Your task to perform on an android device: Open network settings Image 0: 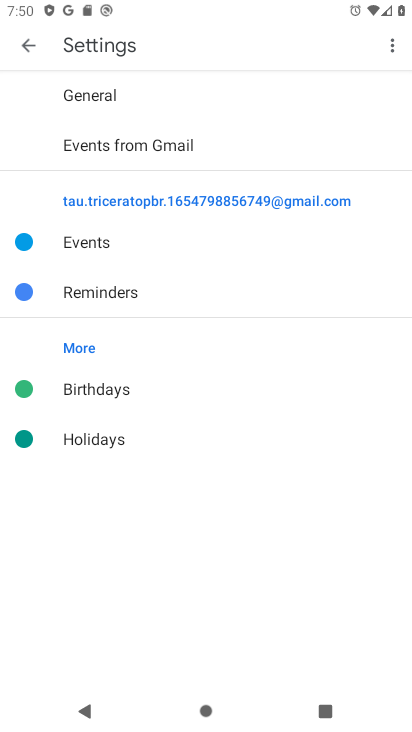
Step 0: press home button
Your task to perform on an android device: Open network settings Image 1: 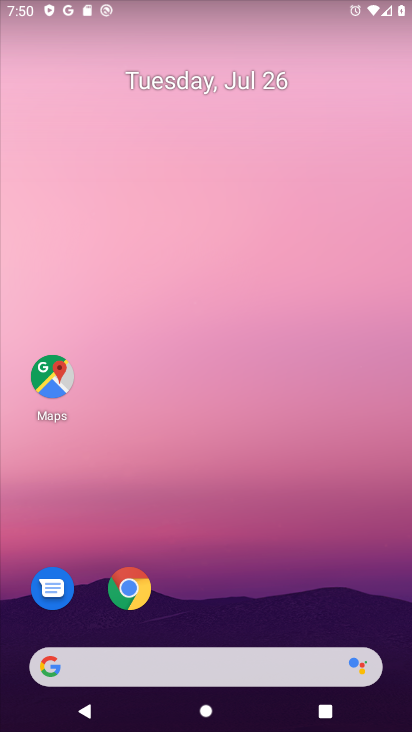
Step 1: drag from (242, 664) to (349, 31)
Your task to perform on an android device: Open network settings Image 2: 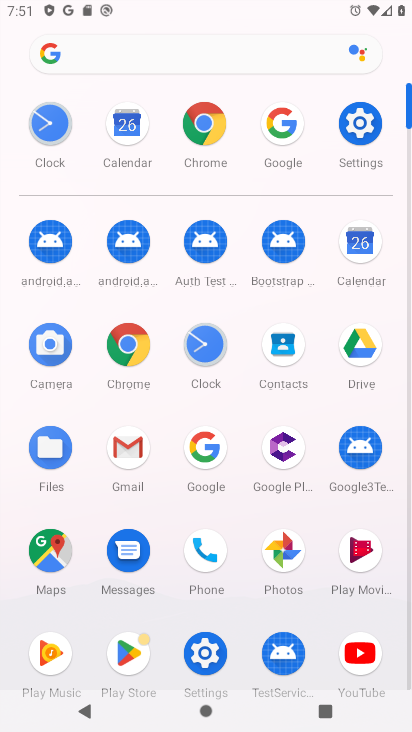
Step 2: click (351, 148)
Your task to perform on an android device: Open network settings Image 3: 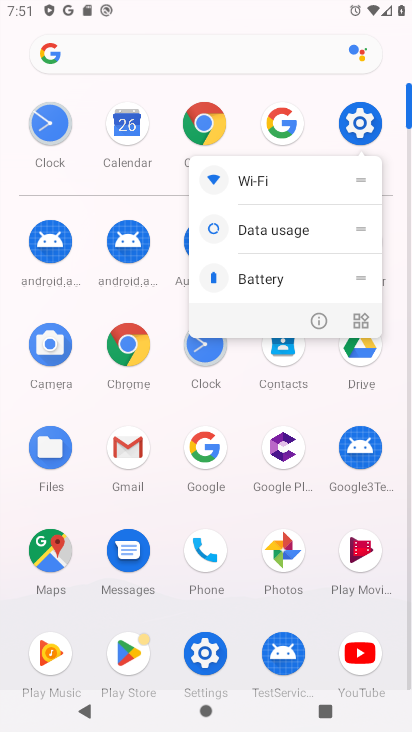
Step 3: click (369, 113)
Your task to perform on an android device: Open network settings Image 4: 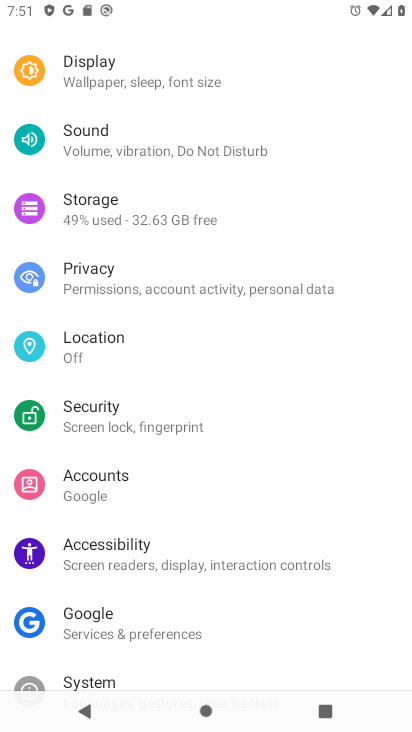
Step 4: drag from (194, 274) to (152, 717)
Your task to perform on an android device: Open network settings Image 5: 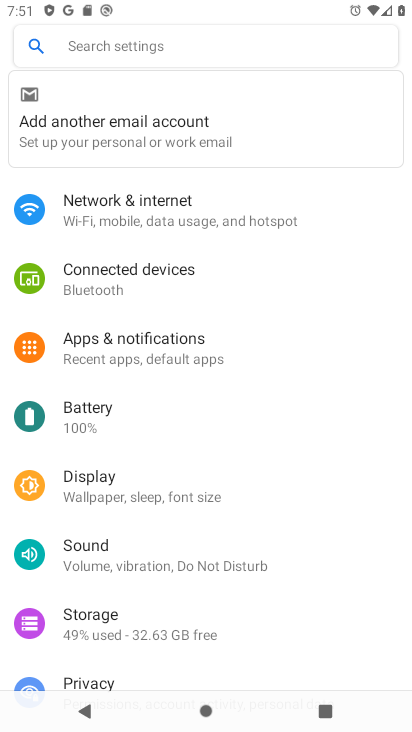
Step 5: click (193, 214)
Your task to perform on an android device: Open network settings Image 6: 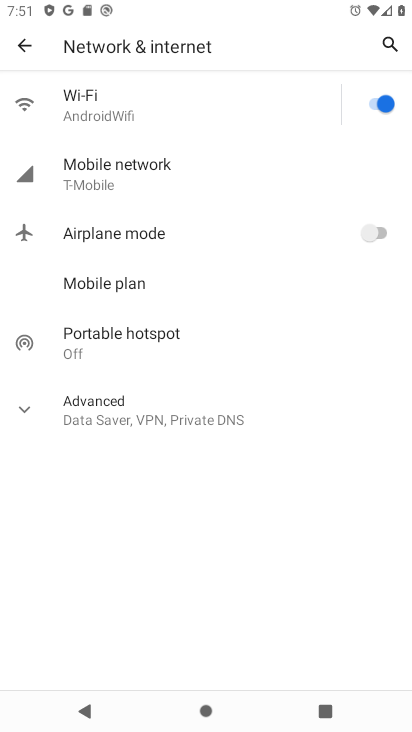
Step 6: click (173, 186)
Your task to perform on an android device: Open network settings Image 7: 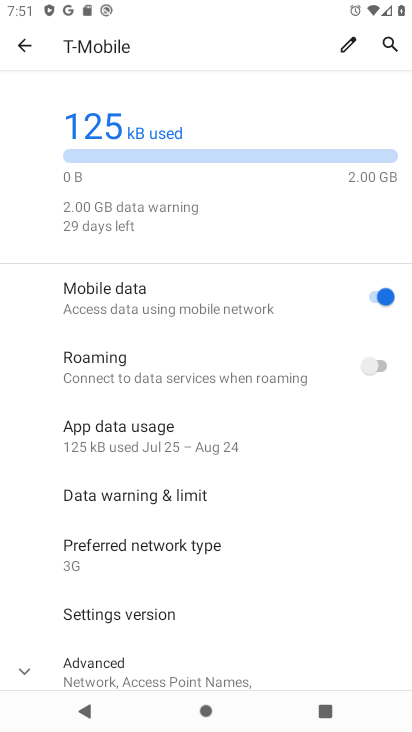
Step 7: task complete